Your task to perform on an android device: snooze an email in the gmail app Image 0: 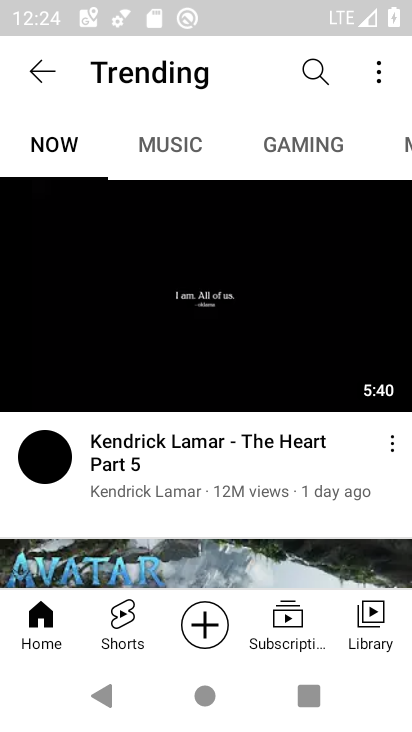
Step 0: press home button
Your task to perform on an android device: snooze an email in the gmail app Image 1: 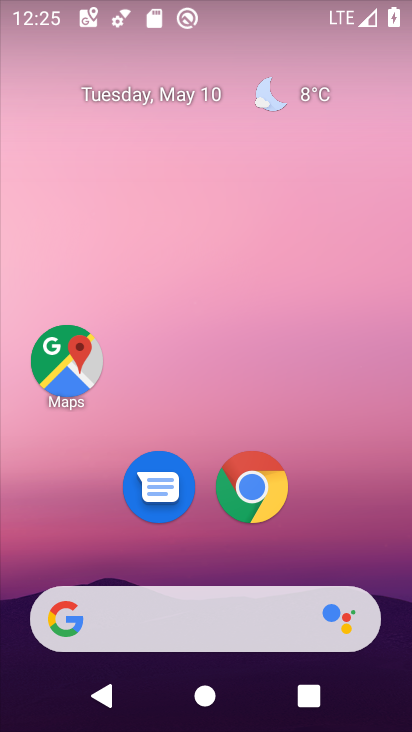
Step 1: drag from (202, 557) to (228, 97)
Your task to perform on an android device: snooze an email in the gmail app Image 2: 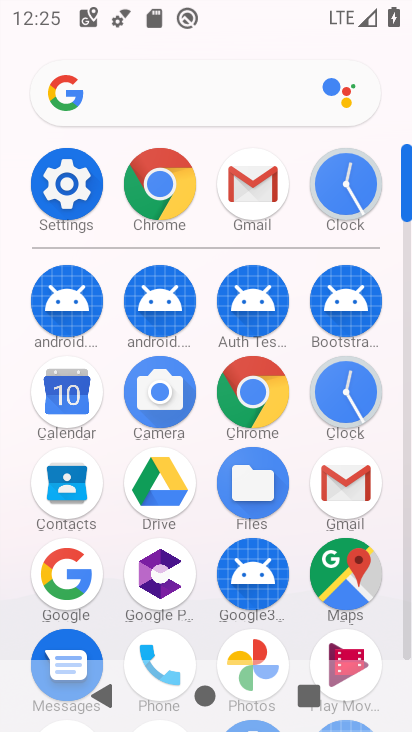
Step 2: click (342, 472)
Your task to perform on an android device: snooze an email in the gmail app Image 3: 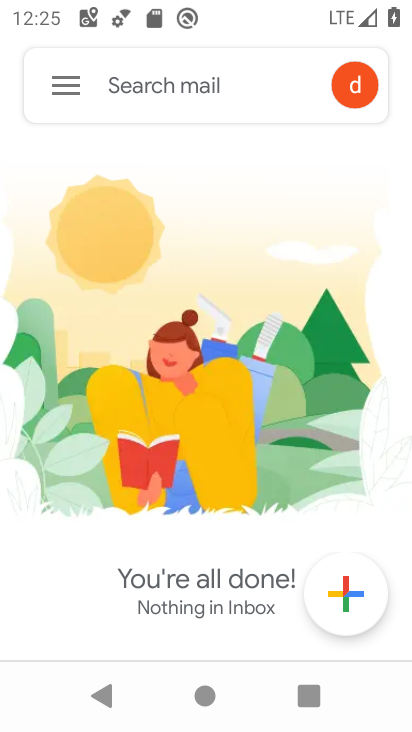
Step 3: task complete